Your task to perform on an android device: View the shopping cart on walmart.com. Search for "usb-a to usb-b" on walmart.com, select the first entry, add it to the cart, then select checkout. Image 0: 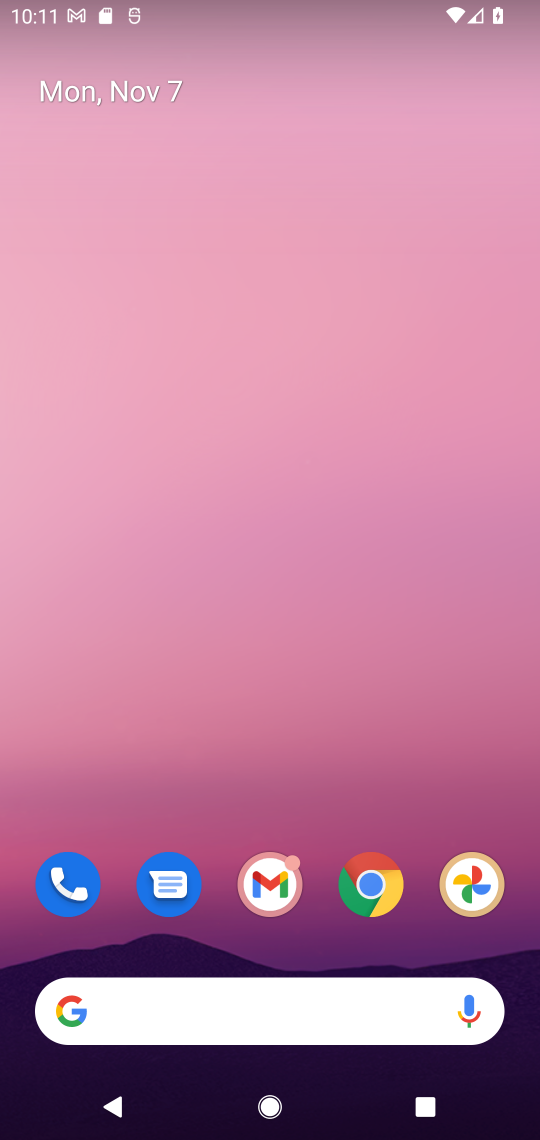
Step 0: click (367, 885)
Your task to perform on an android device: View the shopping cart on walmart.com. Search for "usb-a to usb-b" on walmart.com, select the first entry, add it to the cart, then select checkout. Image 1: 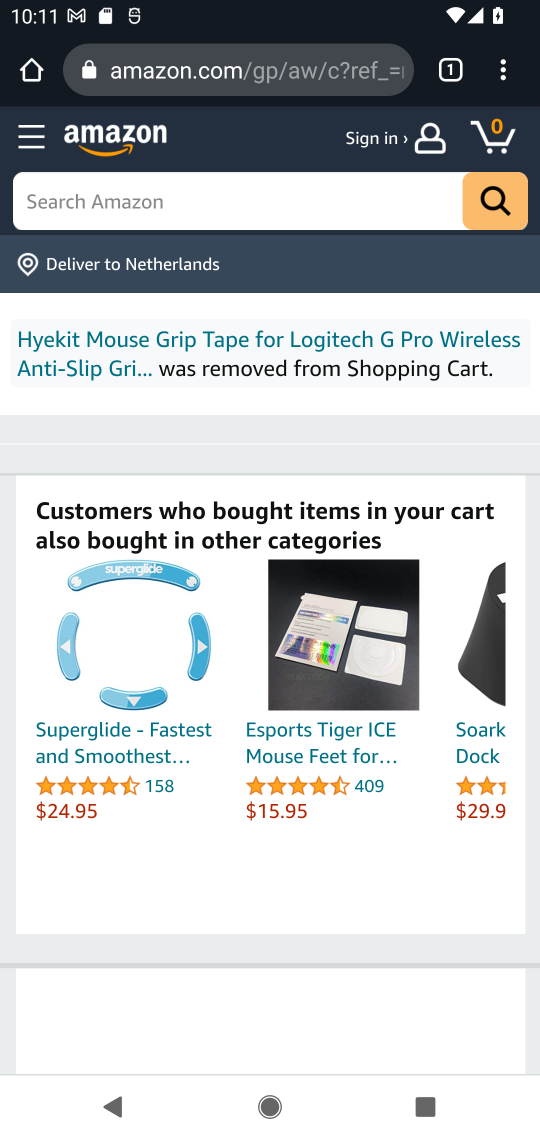
Step 1: click (233, 75)
Your task to perform on an android device: View the shopping cart on walmart.com. Search for "usb-a to usb-b" on walmart.com, select the first entry, add it to the cart, then select checkout. Image 2: 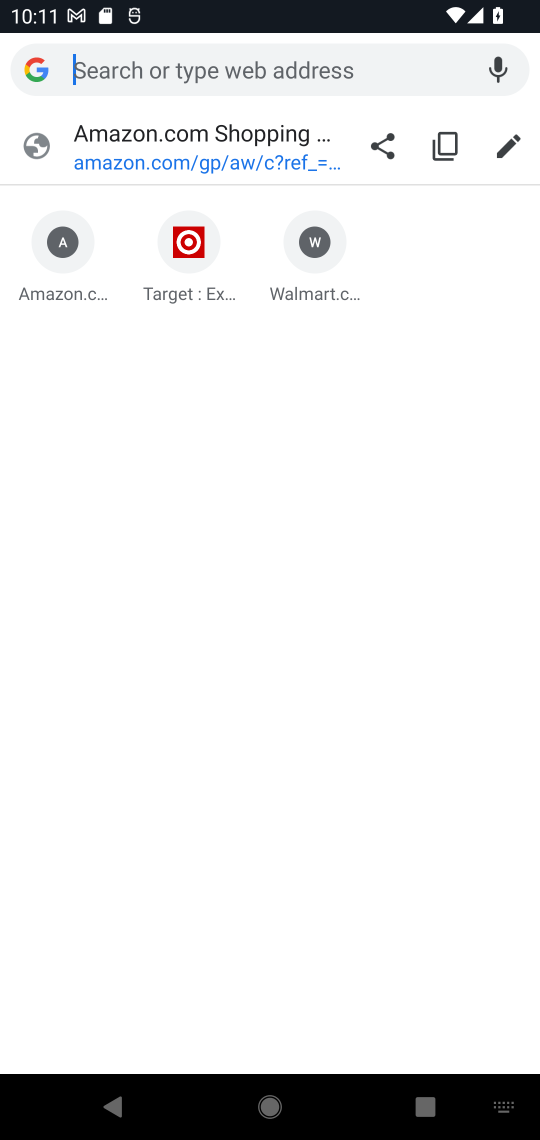
Step 2: type "walmart.com"
Your task to perform on an android device: View the shopping cart on walmart.com. Search for "usb-a to usb-b" on walmart.com, select the first entry, add it to the cart, then select checkout. Image 3: 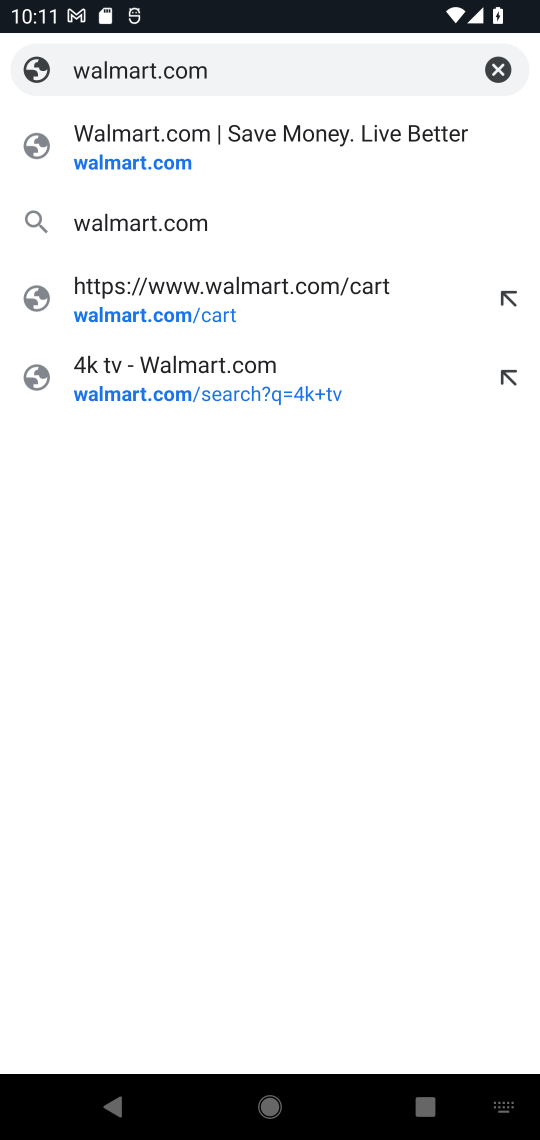
Step 3: click (171, 226)
Your task to perform on an android device: View the shopping cart on walmart.com. Search for "usb-a to usb-b" on walmart.com, select the first entry, add it to the cart, then select checkout. Image 4: 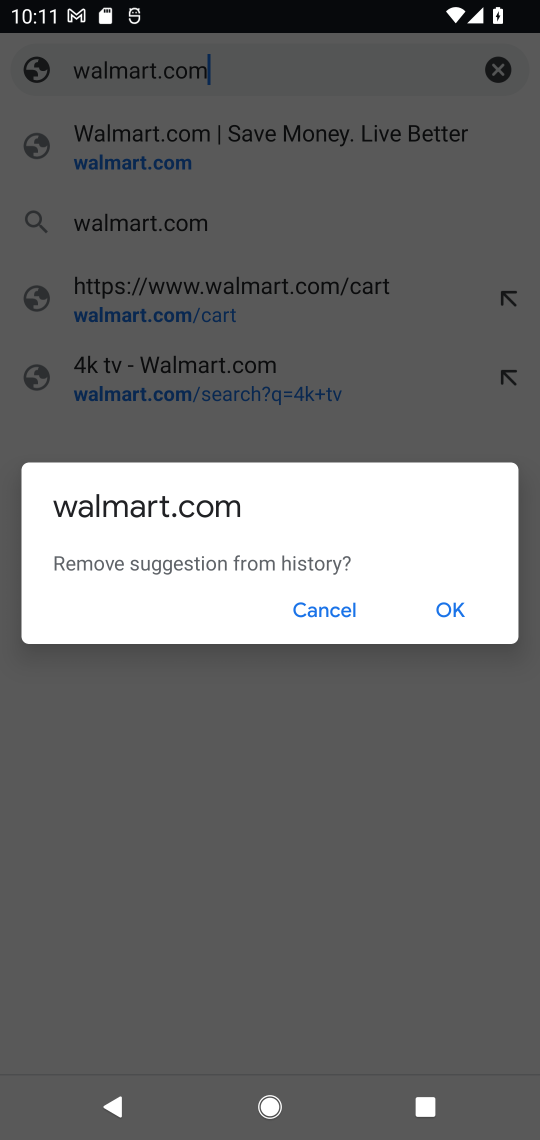
Step 4: click (464, 607)
Your task to perform on an android device: View the shopping cart on walmart.com. Search for "usb-a to usb-b" on walmart.com, select the first entry, add it to the cart, then select checkout. Image 5: 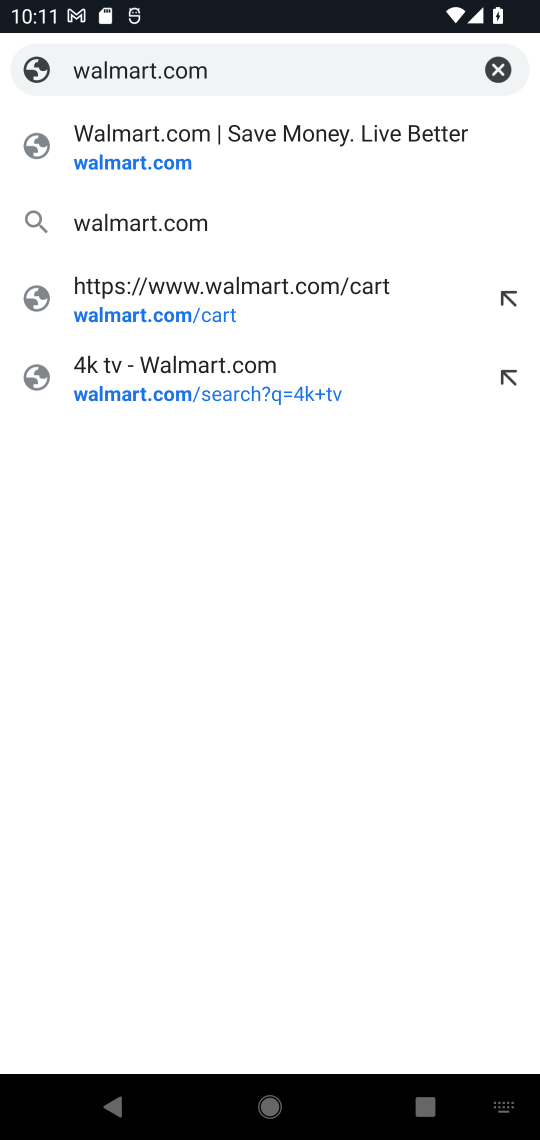
Step 5: click (327, 70)
Your task to perform on an android device: View the shopping cart on walmart.com. Search for "usb-a to usb-b" on walmart.com, select the first entry, add it to the cart, then select checkout. Image 6: 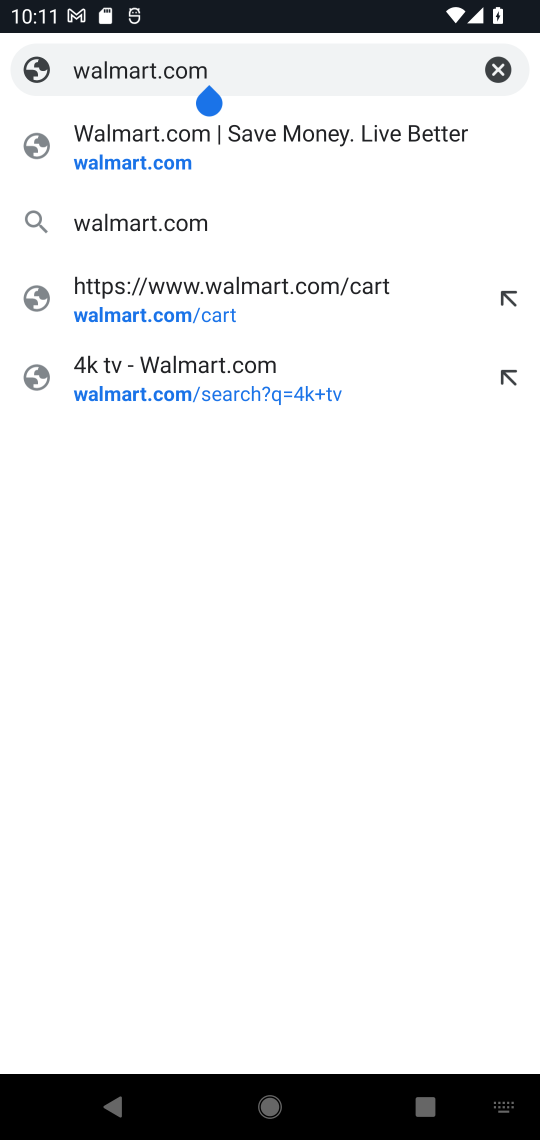
Step 6: click (206, 225)
Your task to perform on an android device: View the shopping cart on walmart.com. Search for "usb-a to usb-b" on walmart.com, select the first entry, add it to the cart, then select checkout. Image 7: 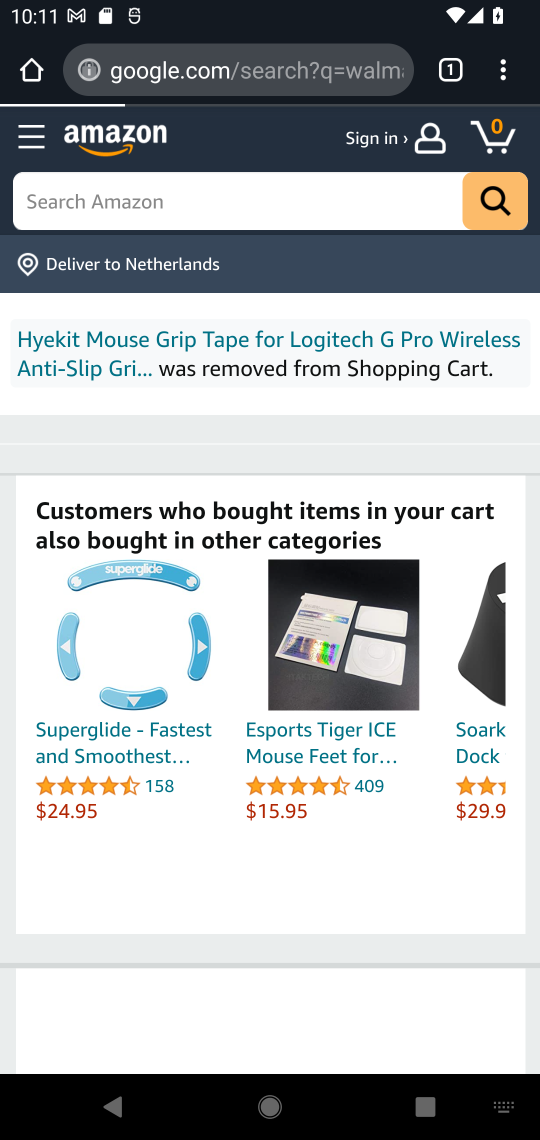
Step 7: click (161, 225)
Your task to perform on an android device: View the shopping cart on walmart.com. Search for "usb-a to usb-b" on walmart.com, select the first entry, add it to the cart, then select checkout. Image 8: 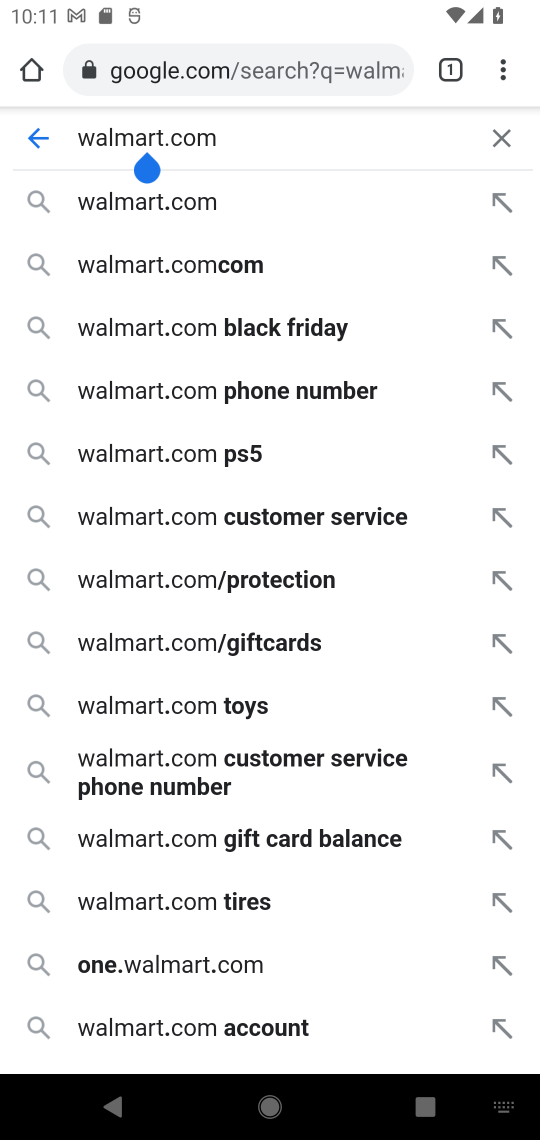
Step 8: click (207, 197)
Your task to perform on an android device: View the shopping cart on walmart.com. Search for "usb-a to usb-b" on walmart.com, select the first entry, add it to the cart, then select checkout. Image 9: 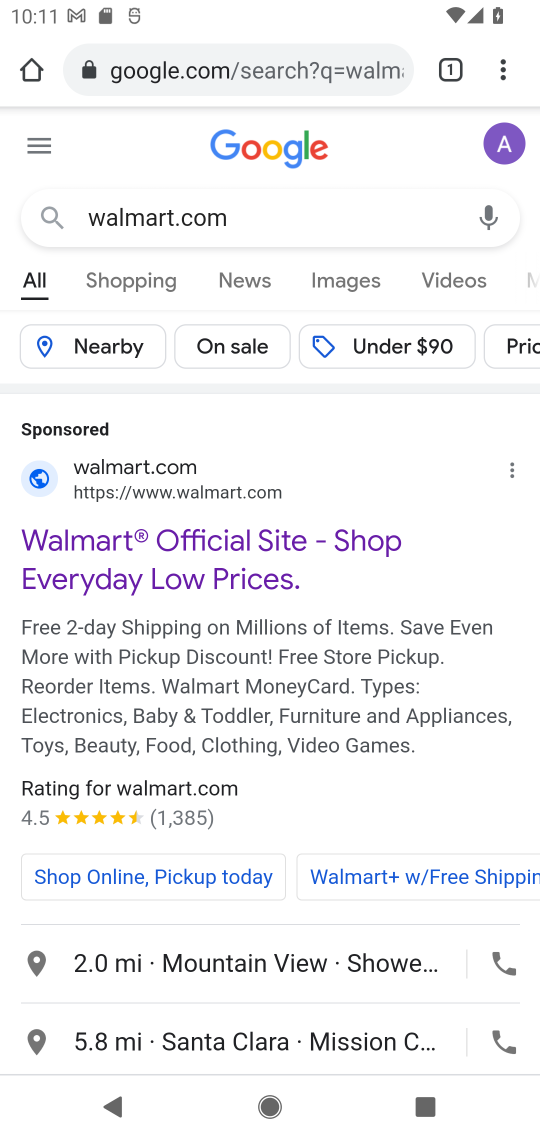
Step 9: click (261, 495)
Your task to perform on an android device: View the shopping cart on walmart.com. Search for "usb-a to usb-b" on walmart.com, select the first entry, add it to the cart, then select checkout. Image 10: 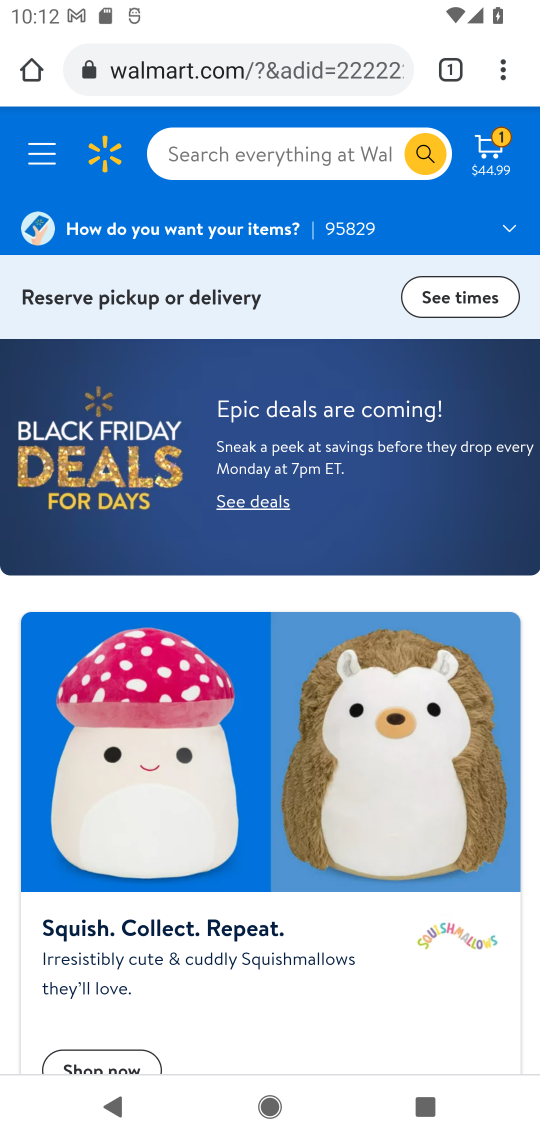
Step 10: click (326, 142)
Your task to perform on an android device: View the shopping cart on walmart.com. Search for "usb-a to usb-b" on walmart.com, select the first entry, add it to the cart, then select checkout. Image 11: 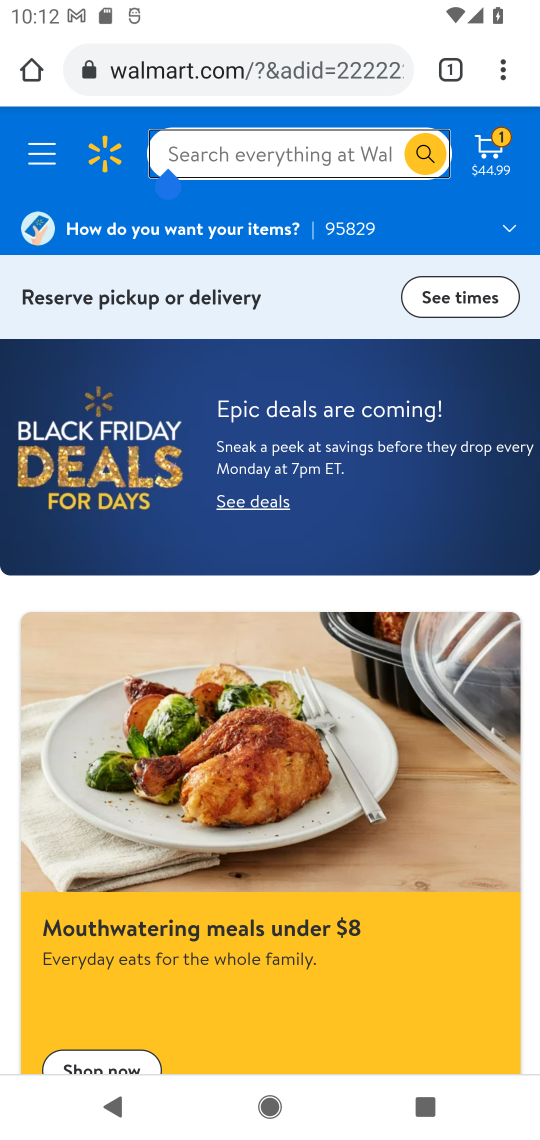
Step 11: type "usb-a to usb-b"
Your task to perform on an android device: View the shopping cart on walmart.com. Search for "usb-a to usb-b" on walmart.com, select the first entry, add it to the cart, then select checkout. Image 12: 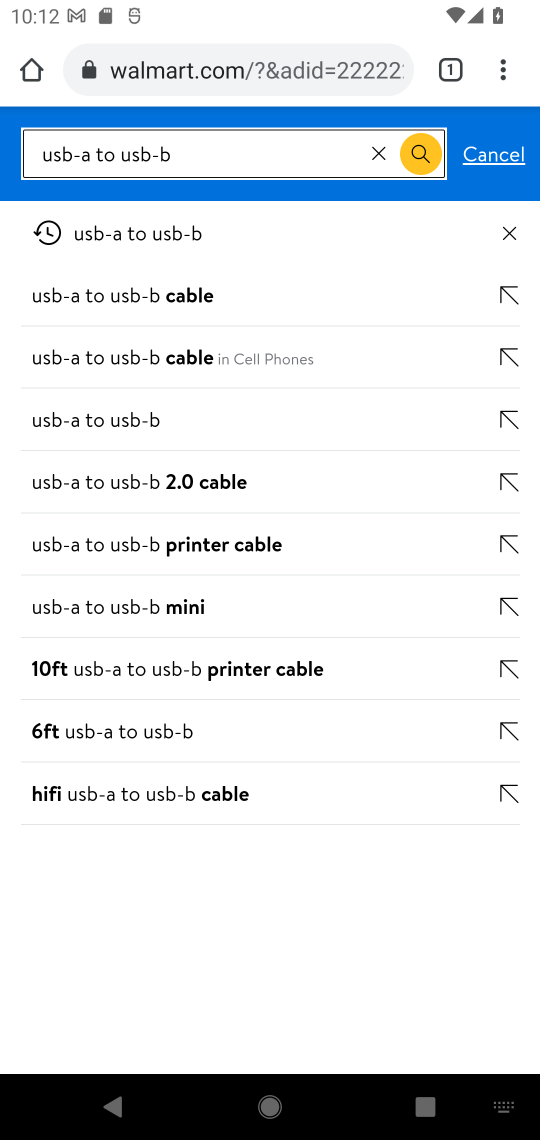
Step 12: click (130, 422)
Your task to perform on an android device: View the shopping cart on walmart.com. Search for "usb-a to usb-b" on walmart.com, select the first entry, add it to the cart, then select checkout. Image 13: 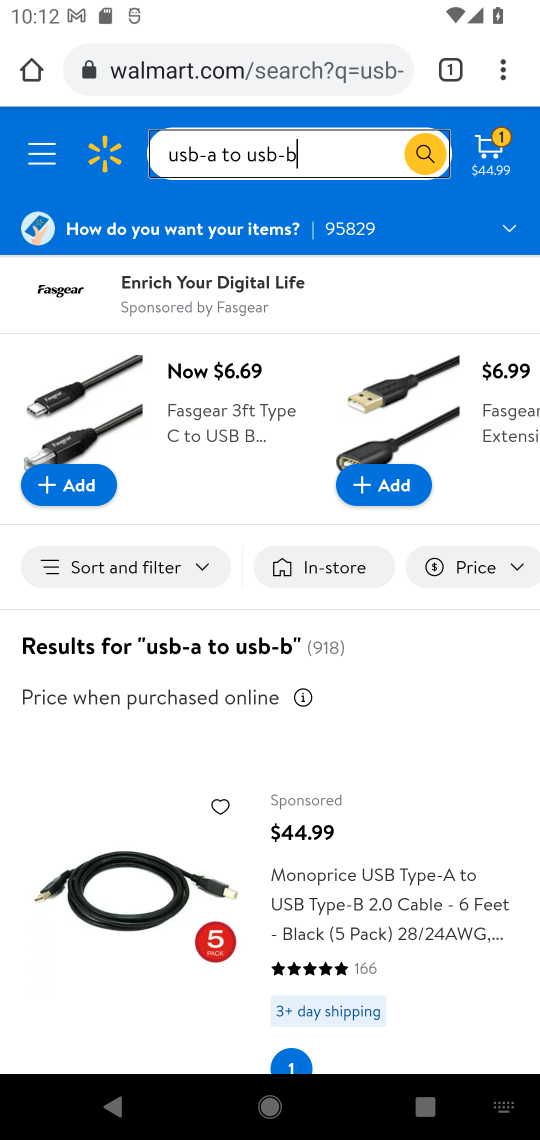
Step 13: drag from (382, 826) to (403, 527)
Your task to perform on an android device: View the shopping cart on walmart.com. Search for "usb-a to usb-b" on walmart.com, select the first entry, add it to the cart, then select checkout. Image 14: 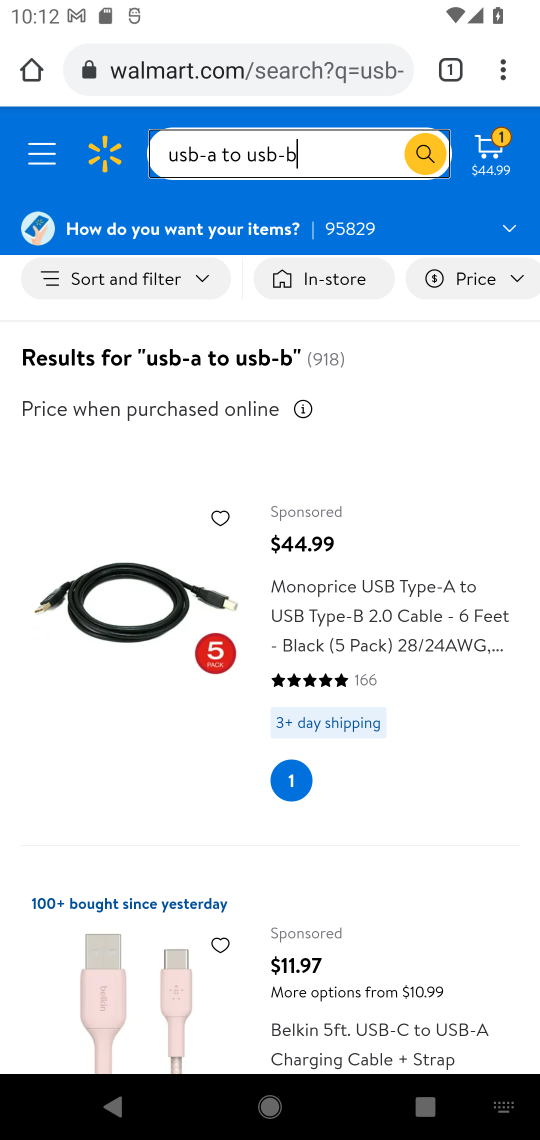
Step 14: click (121, 614)
Your task to perform on an android device: View the shopping cart on walmart.com. Search for "usb-a to usb-b" on walmart.com, select the first entry, add it to the cart, then select checkout. Image 15: 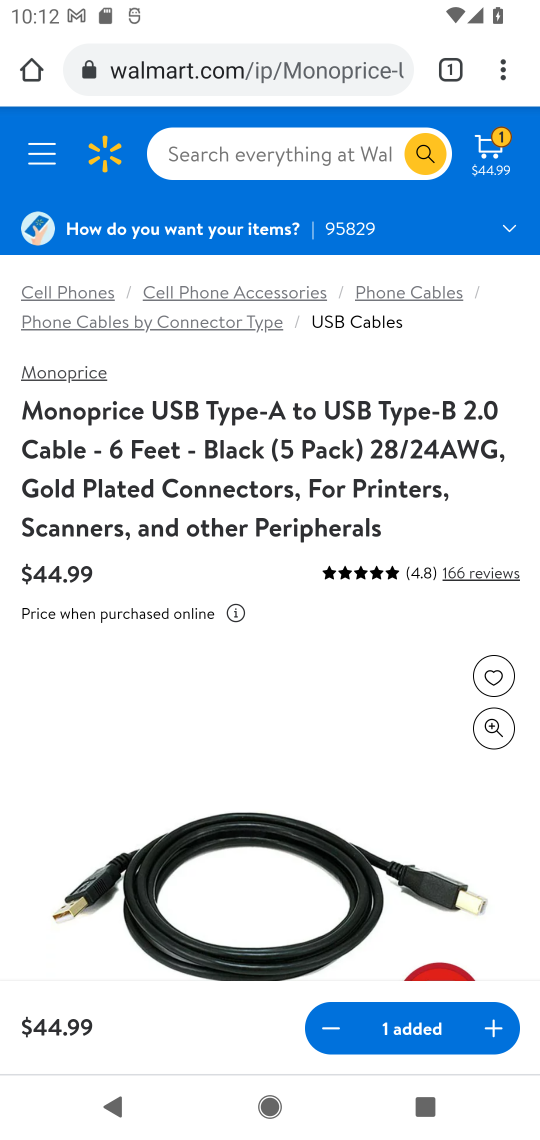
Step 15: press back button
Your task to perform on an android device: View the shopping cart on walmart.com. Search for "usb-a to usb-b" on walmart.com, select the first entry, add it to the cart, then select checkout. Image 16: 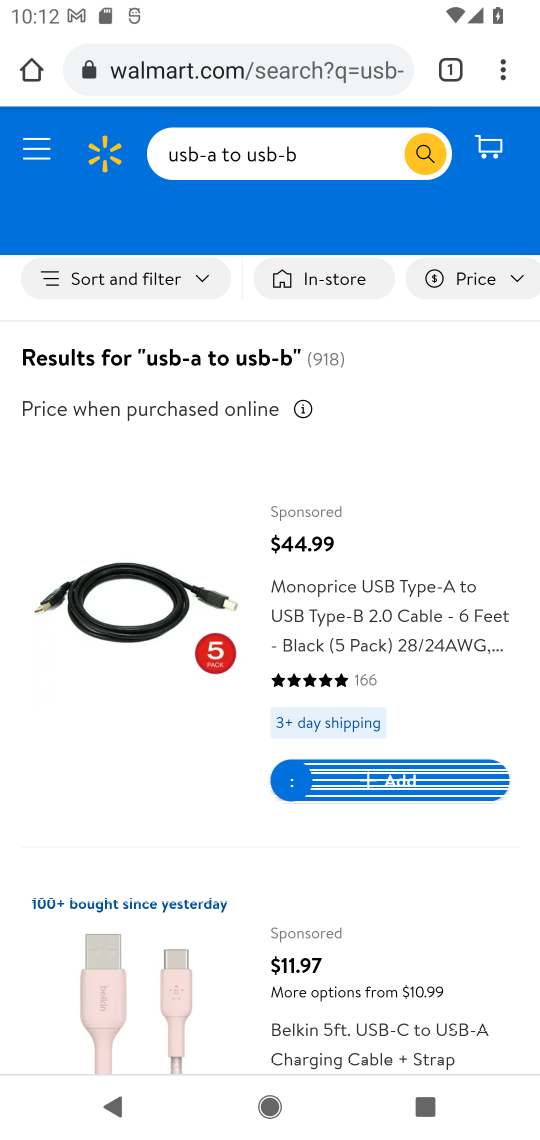
Step 16: drag from (174, 864) to (141, 408)
Your task to perform on an android device: View the shopping cart on walmart.com. Search for "usb-a to usb-b" on walmart.com, select the first entry, add it to the cart, then select checkout. Image 17: 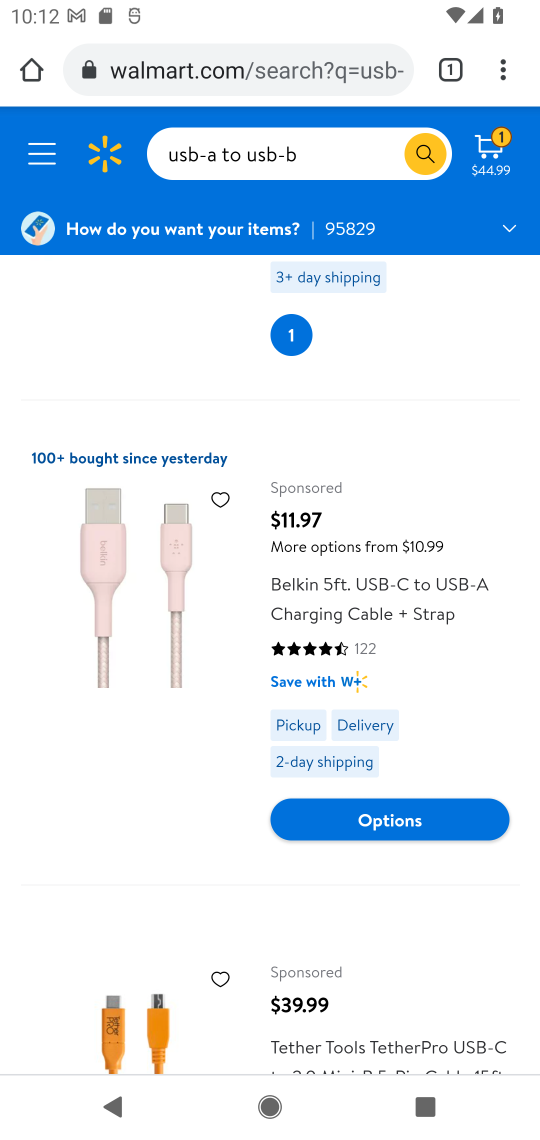
Step 17: drag from (104, 691) to (134, 378)
Your task to perform on an android device: View the shopping cart on walmart.com. Search for "usb-a to usb-b" on walmart.com, select the first entry, add it to the cart, then select checkout. Image 18: 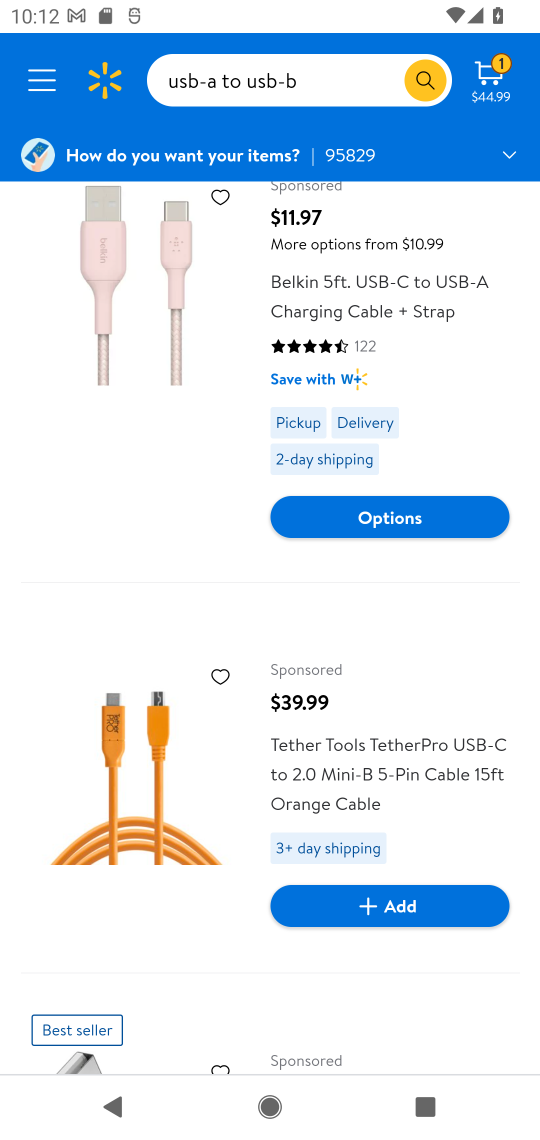
Step 18: drag from (174, 852) to (135, 425)
Your task to perform on an android device: View the shopping cart on walmart.com. Search for "usb-a to usb-b" on walmart.com, select the first entry, add it to the cart, then select checkout. Image 19: 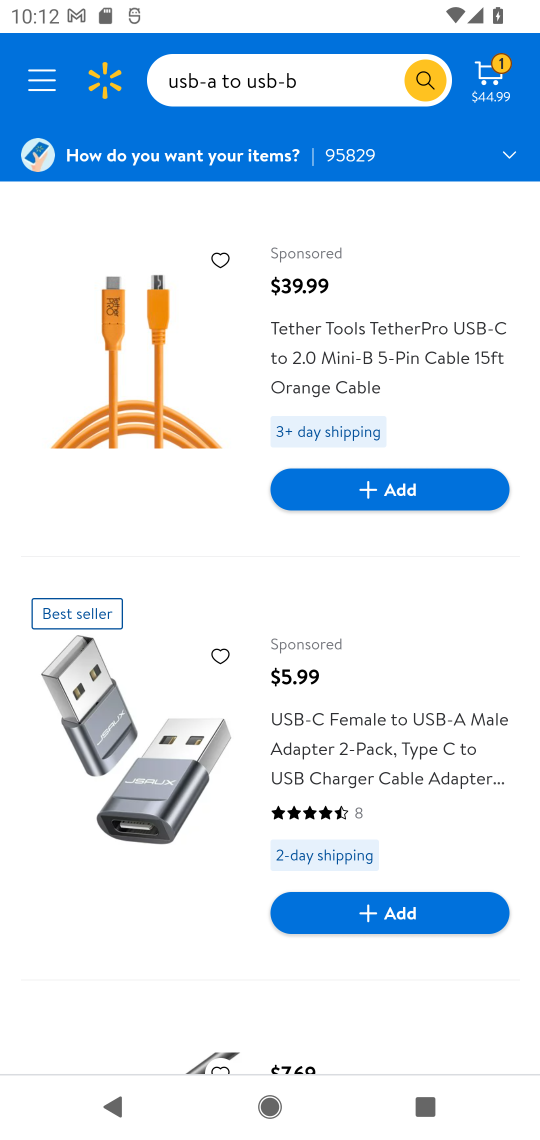
Step 19: drag from (49, 747) to (52, 374)
Your task to perform on an android device: View the shopping cart on walmart.com. Search for "usb-a to usb-b" on walmart.com, select the first entry, add it to the cart, then select checkout. Image 20: 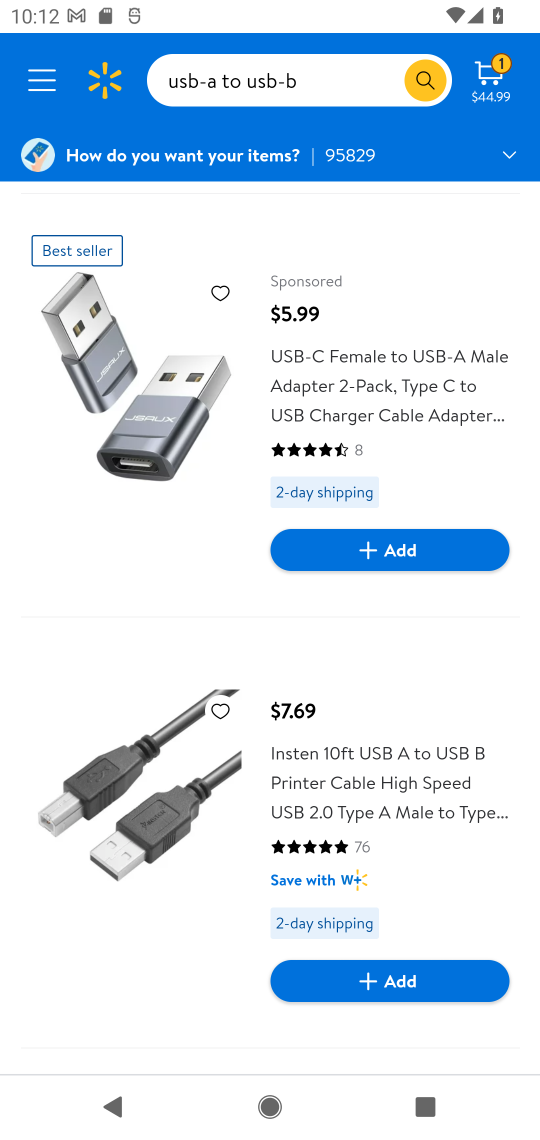
Step 20: click (101, 804)
Your task to perform on an android device: View the shopping cart on walmart.com. Search for "usb-a to usb-b" on walmart.com, select the first entry, add it to the cart, then select checkout. Image 21: 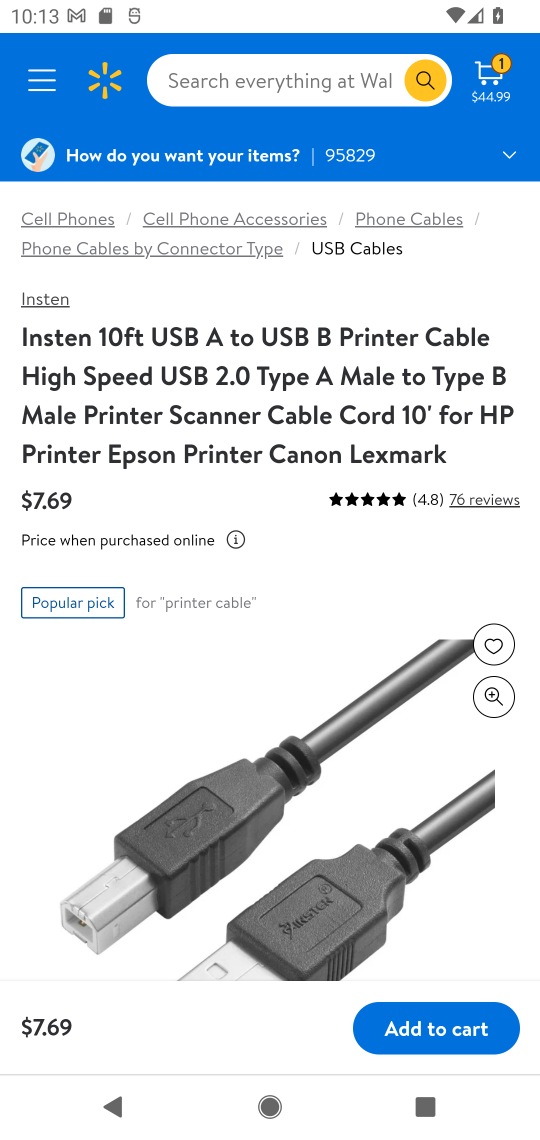
Step 21: click (421, 1027)
Your task to perform on an android device: View the shopping cart on walmart.com. Search for "usb-a to usb-b" on walmart.com, select the first entry, add it to the cart, then select checkout. Image 22: 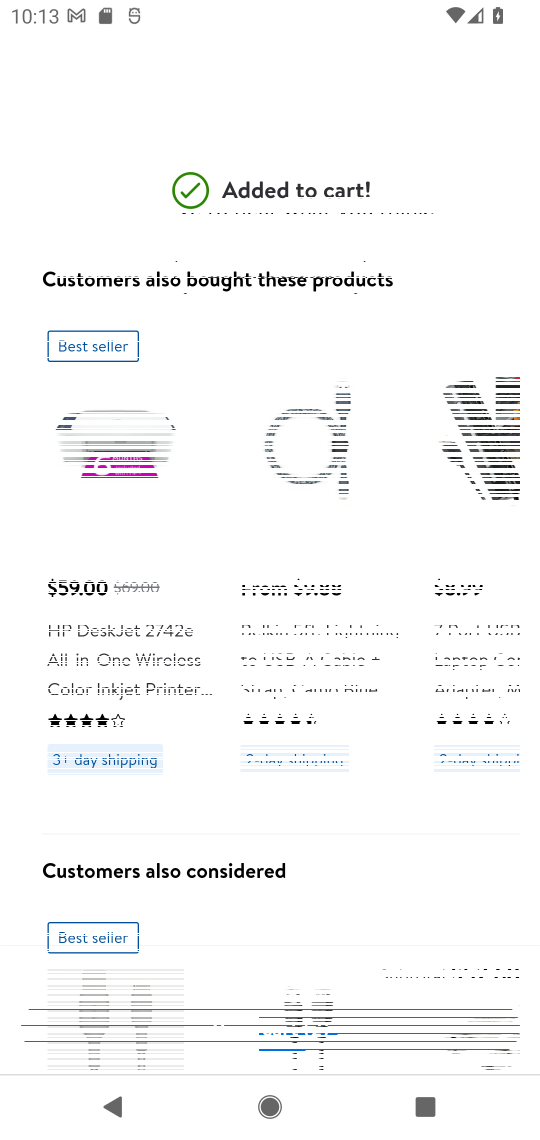
Step 22: task complete